Your task to perform on an android device: toggle sleep mode Image 0: 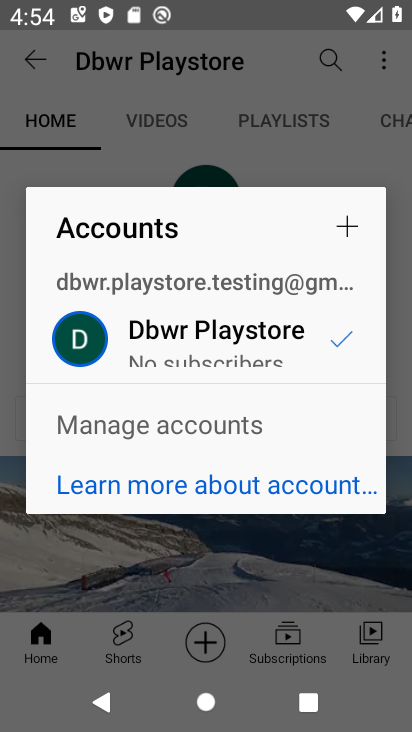
Step 0: press home button
Your task to perform on an android device: toggle sleep mode Image 1: 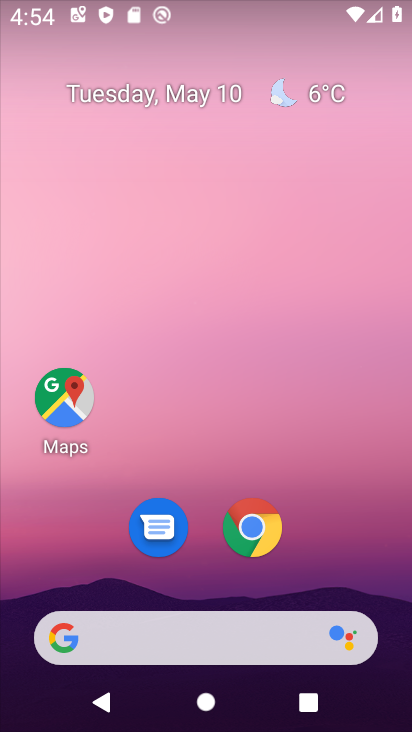
Step 1: drag from (299, 581) to (241, 48)
Your task to perform on an android device: toggle sleep mode Image 2: 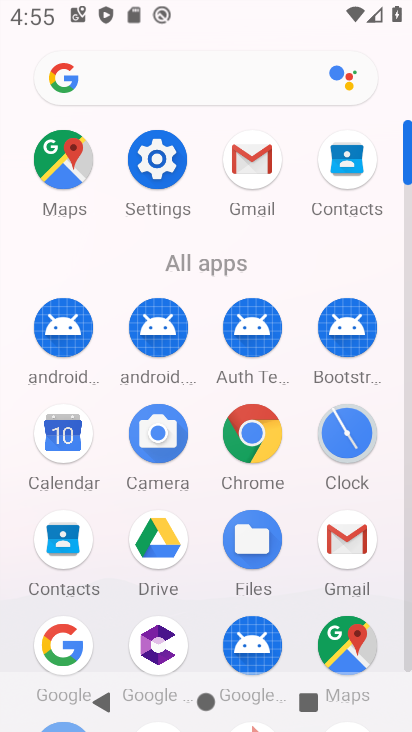
Step 2: click (148, 147)
Your task to perform on an android device: toggle sleep mode Image 3: 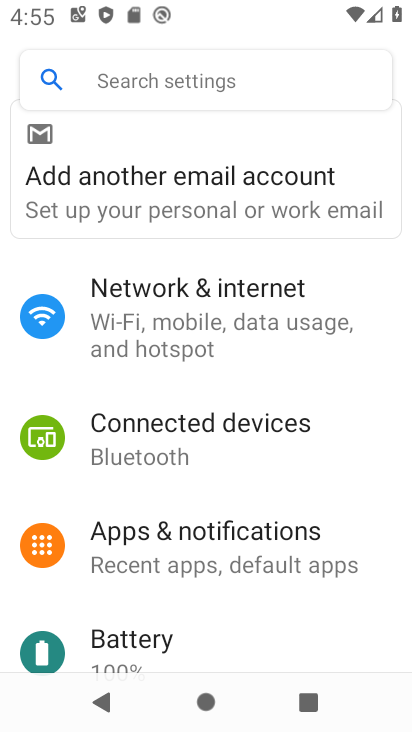
Step 3: drag from (202, 578) to (178, 198)
Your task to perform on an android device: toggle sleep mode Image 4: 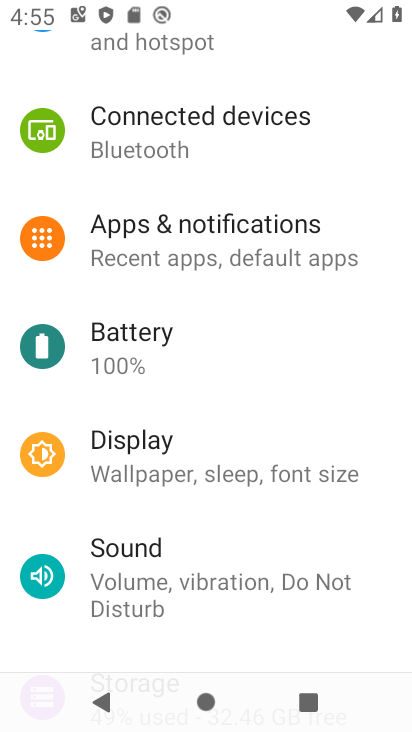
Step 4: click (208, 474)
Your task to perform on an android device: toggle sleep mode Image 5: 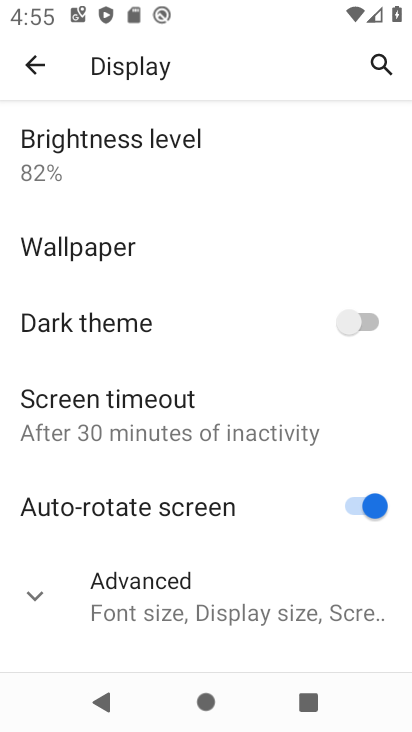
Step 5: click (233, 608)
Your task to perform on an android device: toggle sleep mode Image 6: 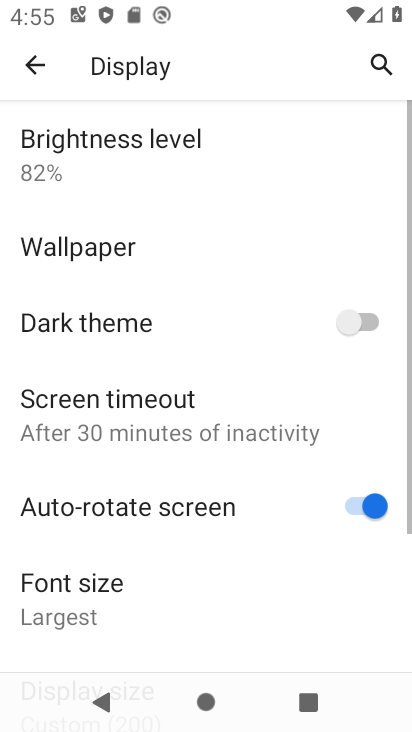
Step 6: task complete